Your task to perform on an android device: toggle location history Image 0: 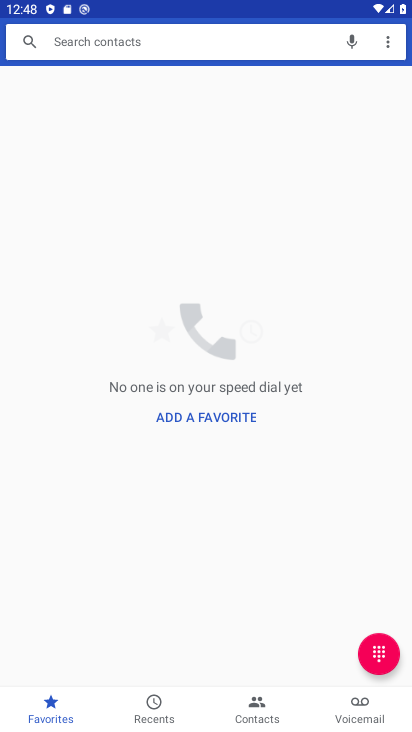
Step 0: press home button
Your task to perform on an android device: toggle location history Image 1: 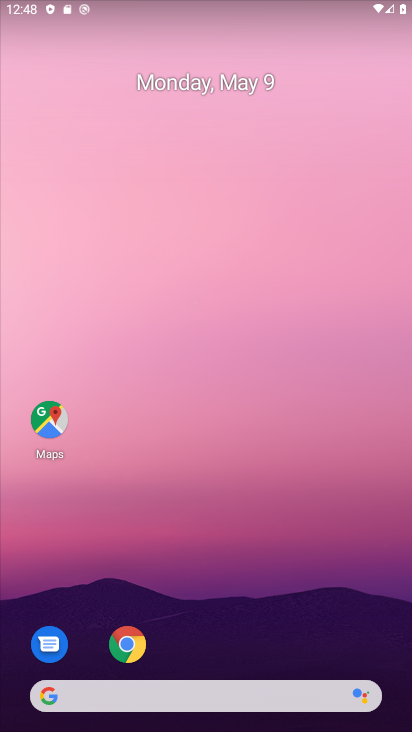
Step 1: drag from (201, 551) to (149, 163)
Your task to perform on an android device: toggle location history Image 2: 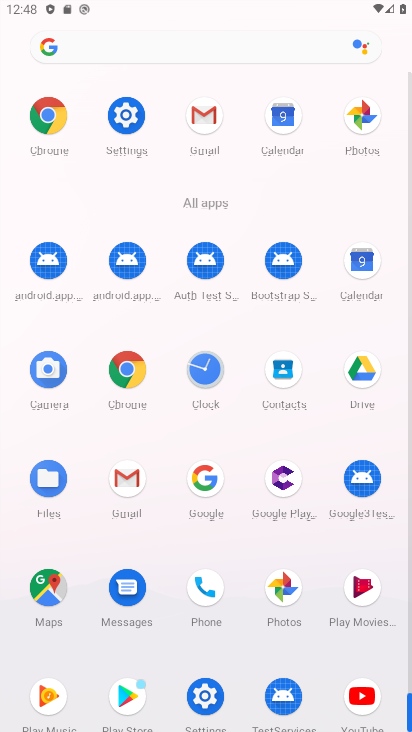
Step 2: click (122, 146)
Your task to perform on an android device: toggle location history Image 3: 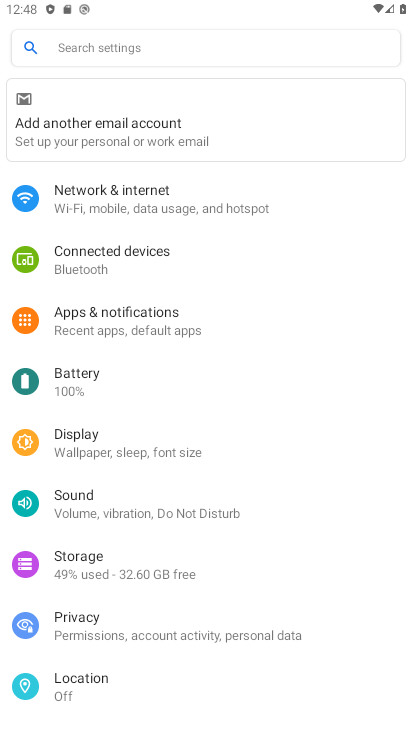
Step 3: drag from (145, 568) to (149, 376)
Your task to perform on an android device: toggle location history Image 4: 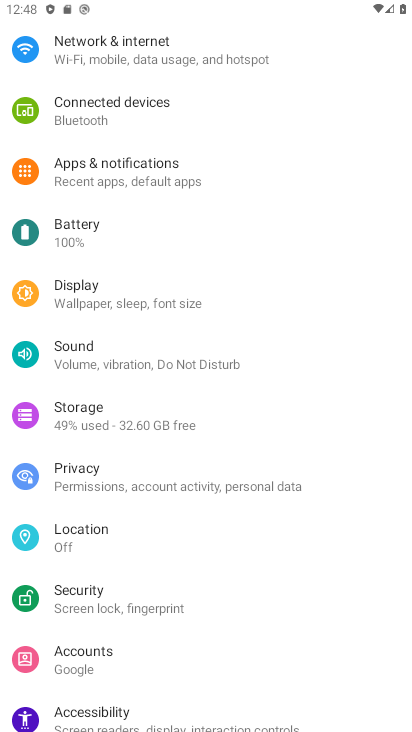
Step 4: click (75, 546)
Your task to perform on an android device: toggle location history Image 5: 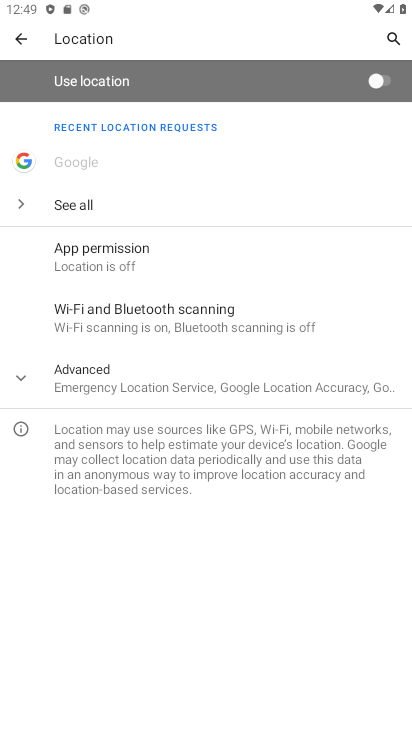
Step 5: click (113, 392)
Your task to perform on an android device: toggle location history Image 6: 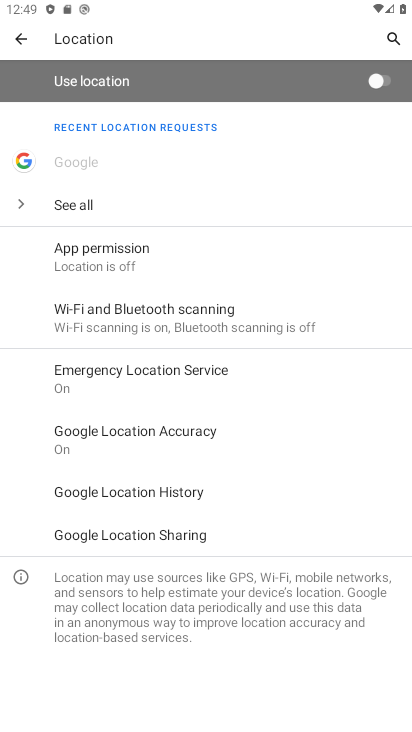
Step 6: click (124, 502)
Your task to perform on an android device: toggle location history Image 7: 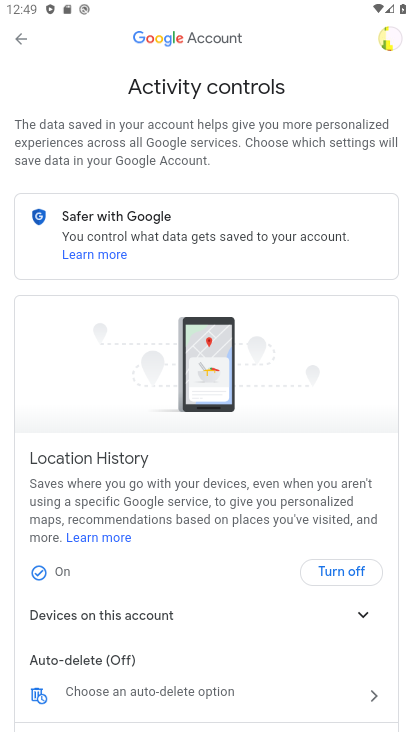
Step 7: click (340, 580)
Your task to perform on an android device: toggle location history Image 8: 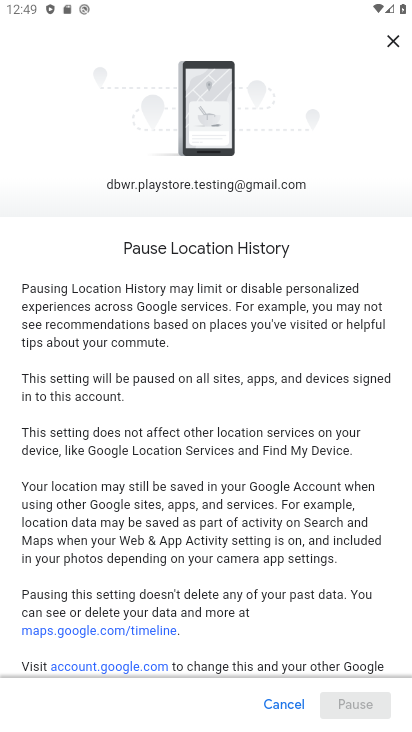
Step 8: drag from (240, 573) to (244, 273)
Your task to perform on an android device: toggle location history Image 9: 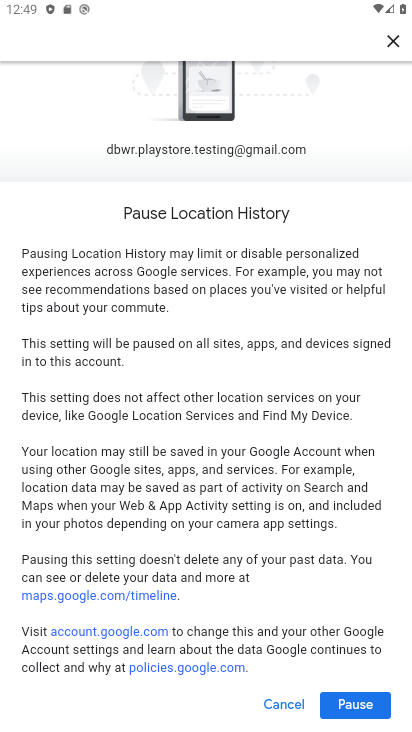
Step 9: click (369, 711)
Your task to perform on an android device: toggle location history Image 10: 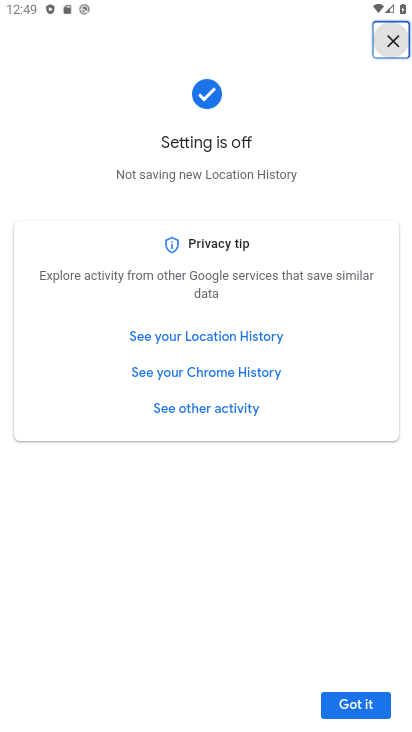
Step 10: click (357, 703)
Your task to perform on an android device: toggle location history Image 11: 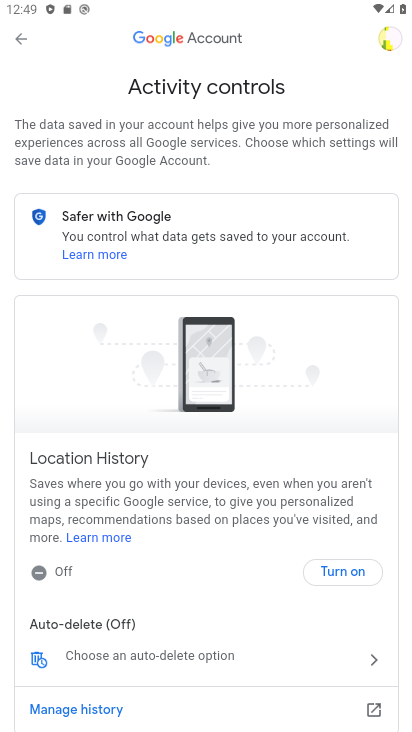
Step 11: task complete